Your task to perform on an android device: uninstall "Microsoft Authenticator" Image 0: 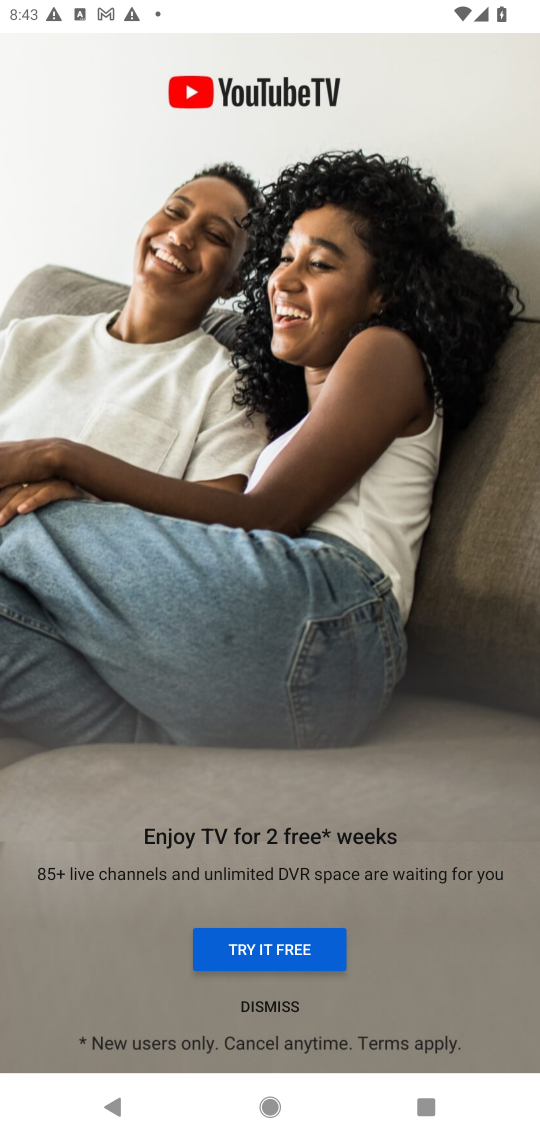
Step 0: press home button
Your task to perform on an android device: uninstall "Microsoft Authenticator" Image 1: 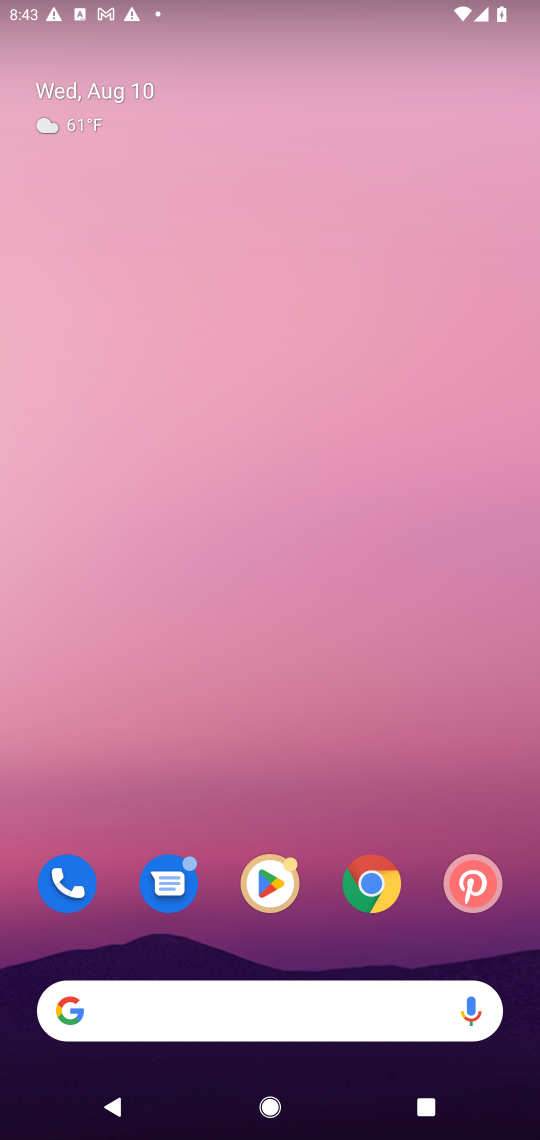
Step 1: click (259, 880)
Your task to perform on an android device: uninstall "Microsoft Authenticator" Image 2: 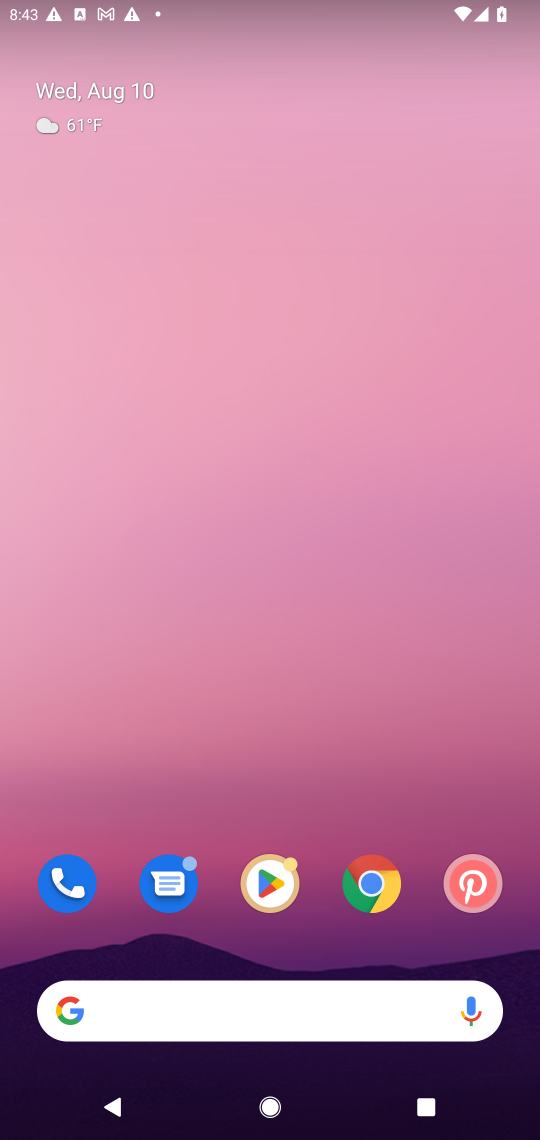
Step 2: click (268, 868)
Your task to perform on an android device: uninstall "Microsoft Authenticator" Image 3: 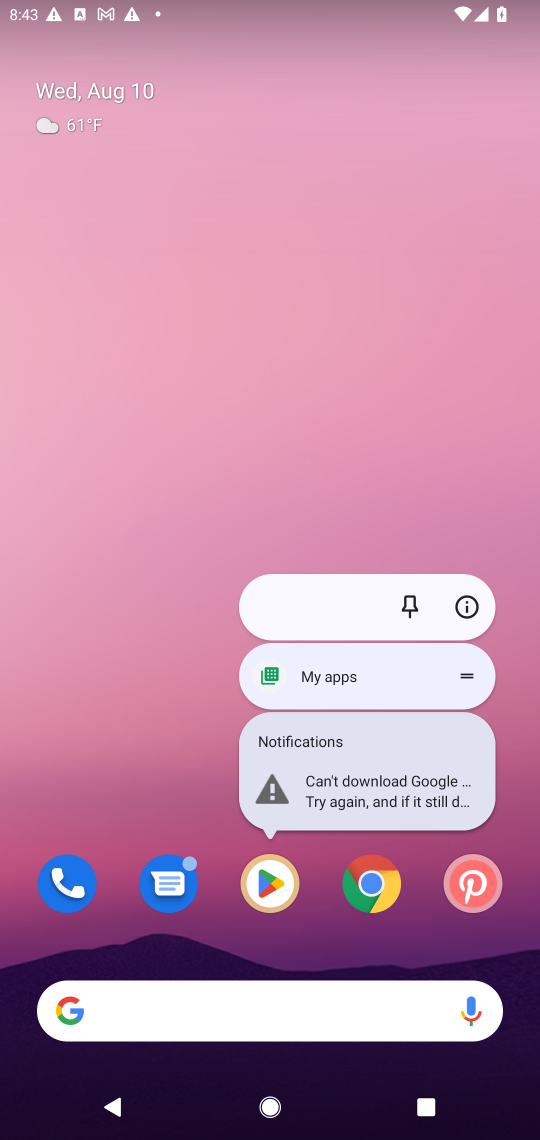
Step 3: click (268, 868)
Your task to perform on an android device: uninstall "Microsoft Authenticator" Image 4: 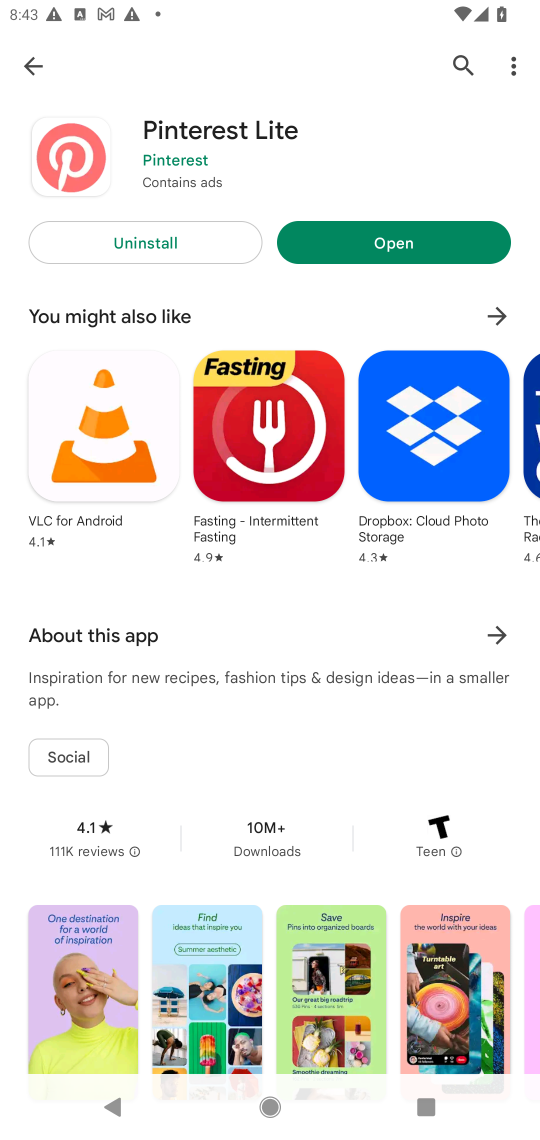
Step 4: click (456, 68)
Your task to perform on an android device: uninstall "Microsoft Authenticator" Image 5: 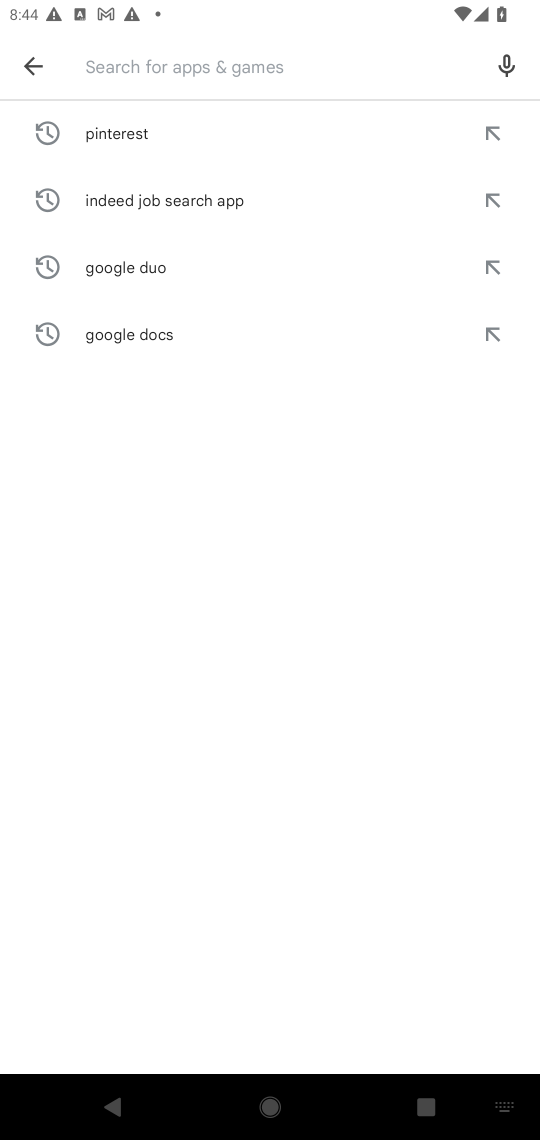
Step 5: type "Microsoft Authenticator"
Your task to perform on an android device: uninstall "Microsoft Authenticator" Image 6: 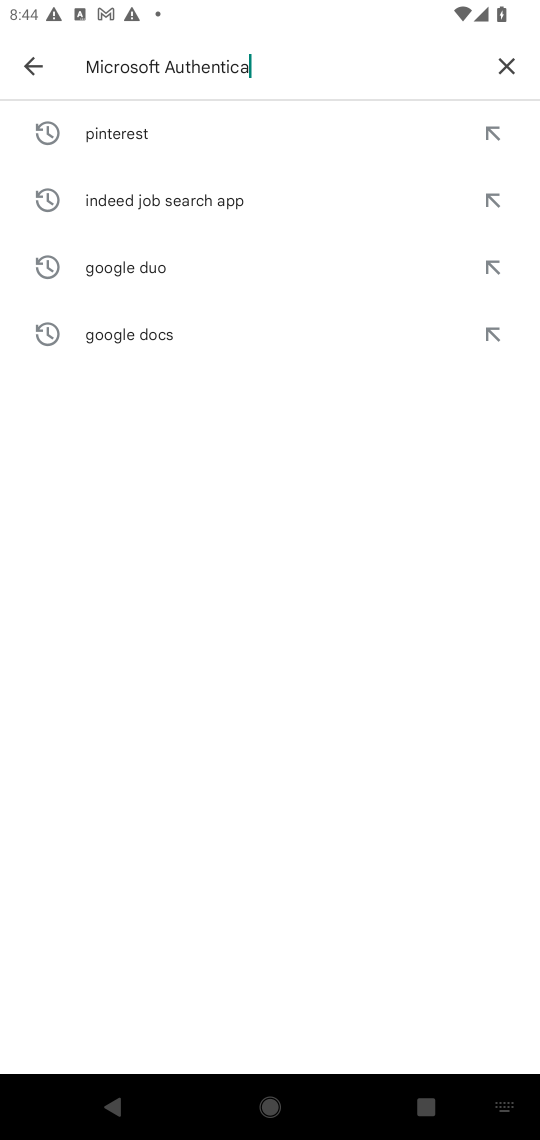
Step 6: type ""
Your task to perform on an android device: uninstall "Microsoft Authenticator" Image 7: 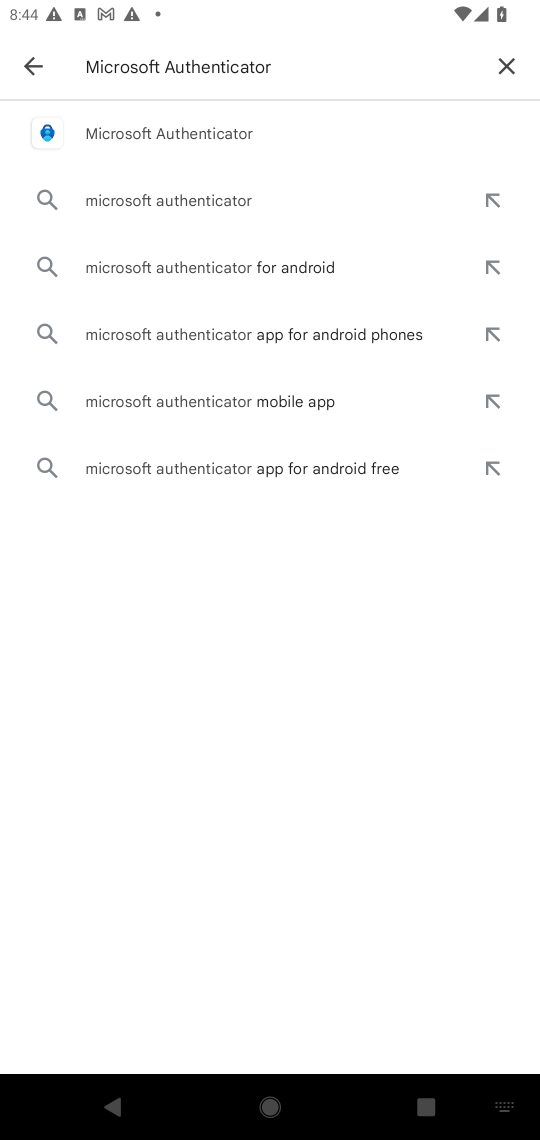
Step 7: click (248, 144)
Your task to perform on an android device: uninstall "Microsoft Authenticator" Image 8: 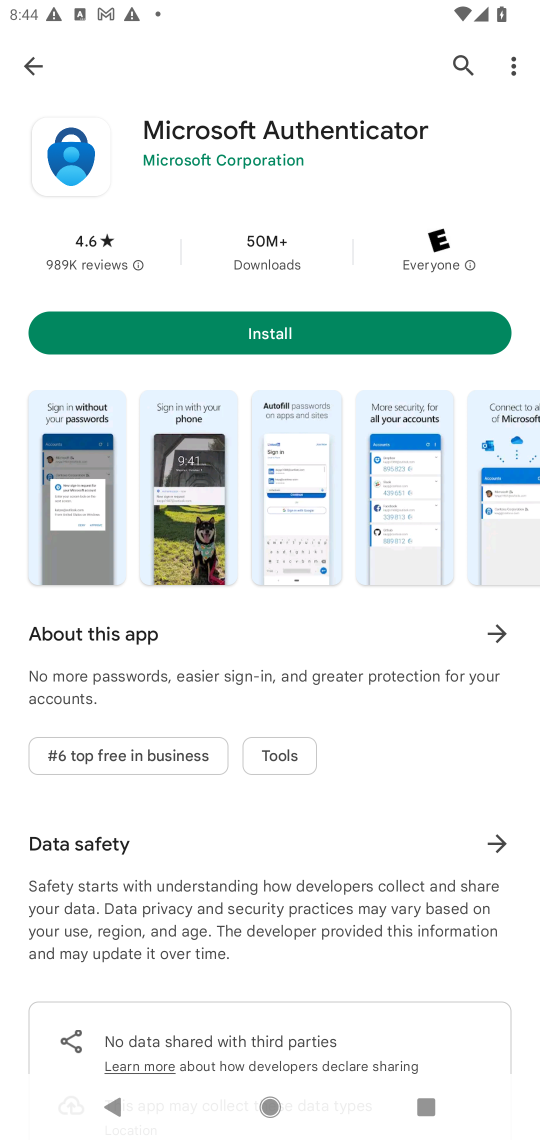
Step 8: task complete